Your task to perform on an android device: Search for jbl charge 4 on bestbuy.com, select the first entry, add it to the cart, then select checkout. Image 0: 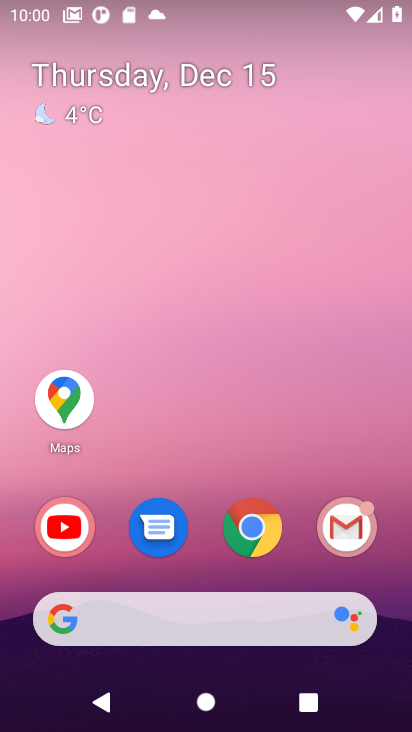
Step 0: click (253, 583)
Your task to perform on an android device: Search for jbl charge 4 on bestbuy.com, select the first entry, add it to the cart, then select checkout. Image 1: 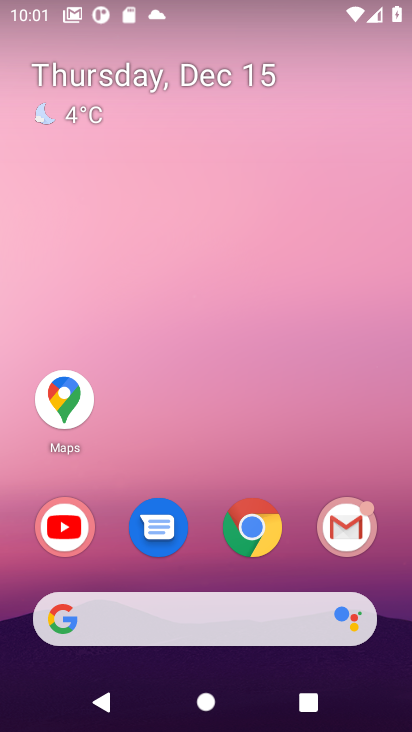
Step 1: click (264, 538)
Your task to perform on an android device: Search for jbl charge 4 on bestbuy.com, select the first entry, add it to the cart, then select checkout. Image 2: 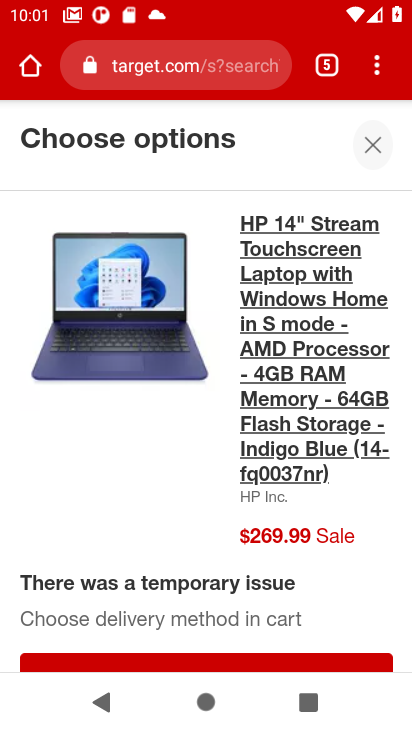
Step 2: drag from (109, 668) to (129, 400)
Your task to perform on an android device: Search for jbl charge 4 on bestbuy.com, select the first entry, add it to the cart, then select checkout. Image 3: 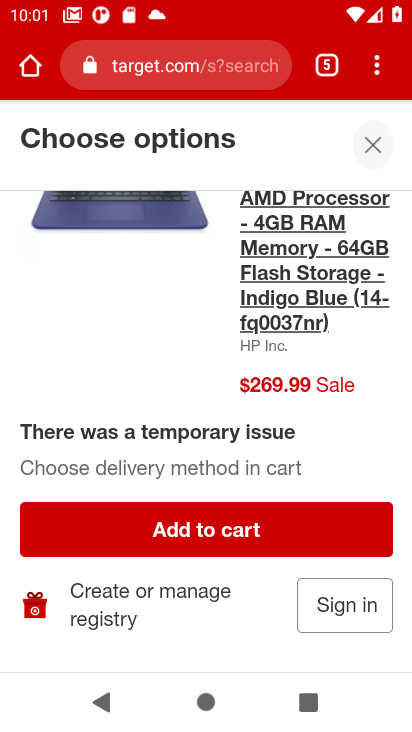
Step 3: click (167, 528)
Your task to perform on an android device: Search for jbl charge 4 on bestbuy.com, select the first entry, add it to the cart, then select checkout. Image 4: 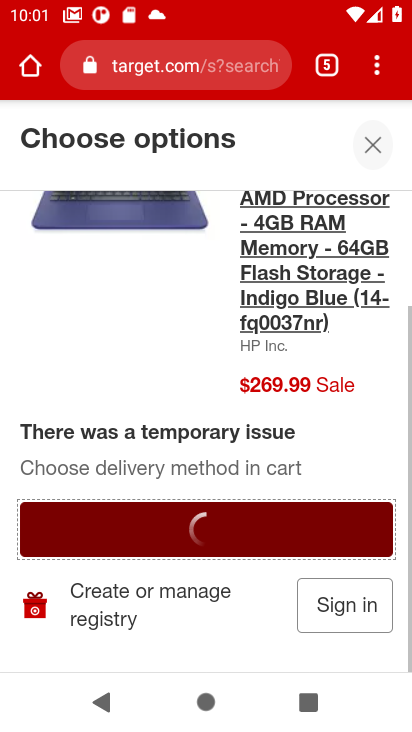
Step 4: task complete